Your task to perform on an android device: Go to wifi settings Image 0: 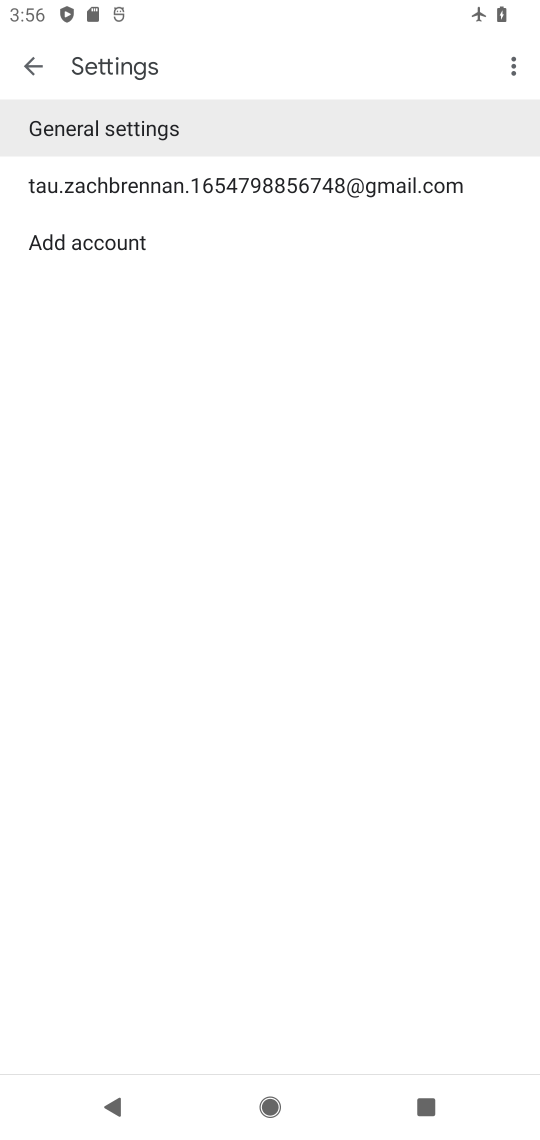
Step 0: press home button
Your task to perform on an android device: Go to wifi settings Image 1: 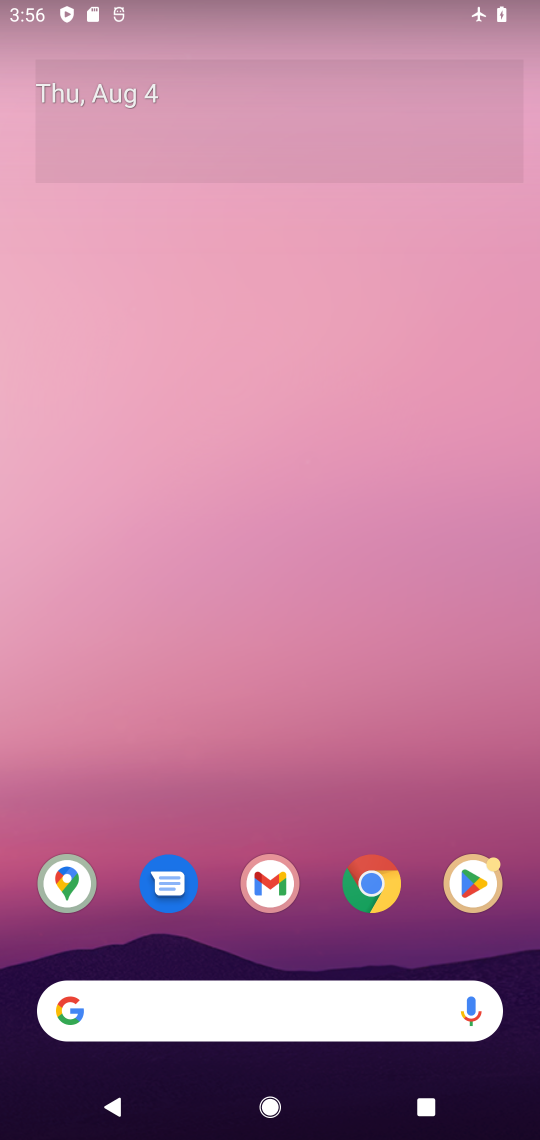
Step 1: drag from (422, 870) to (155, 53)
Your task to perform on an android device: Go to wifi settings Image 2: 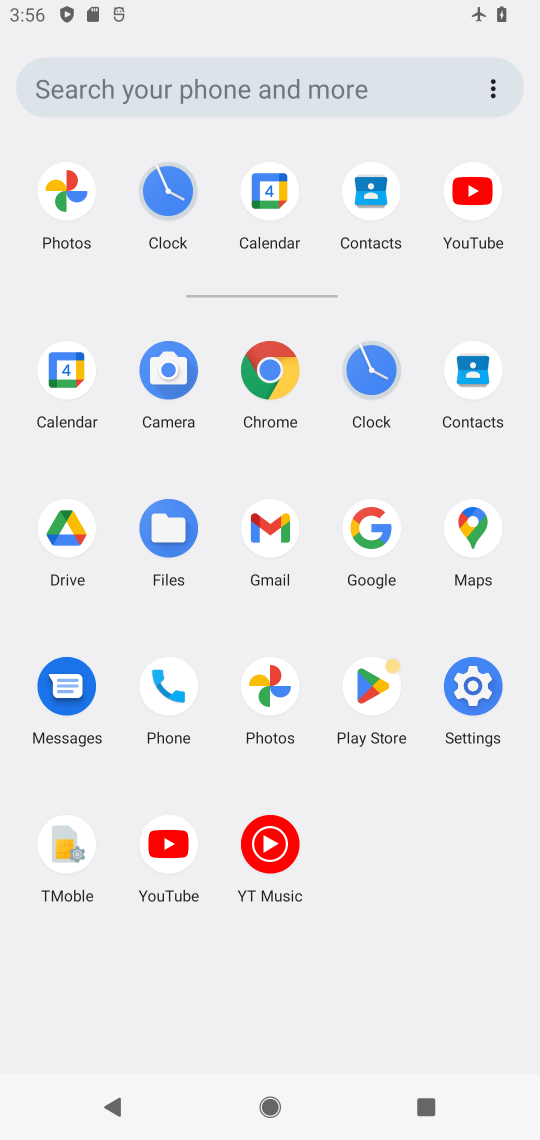
Step 2: click (444, 698)
Your task to perform on an android device: Go to wifi settings Image 3: 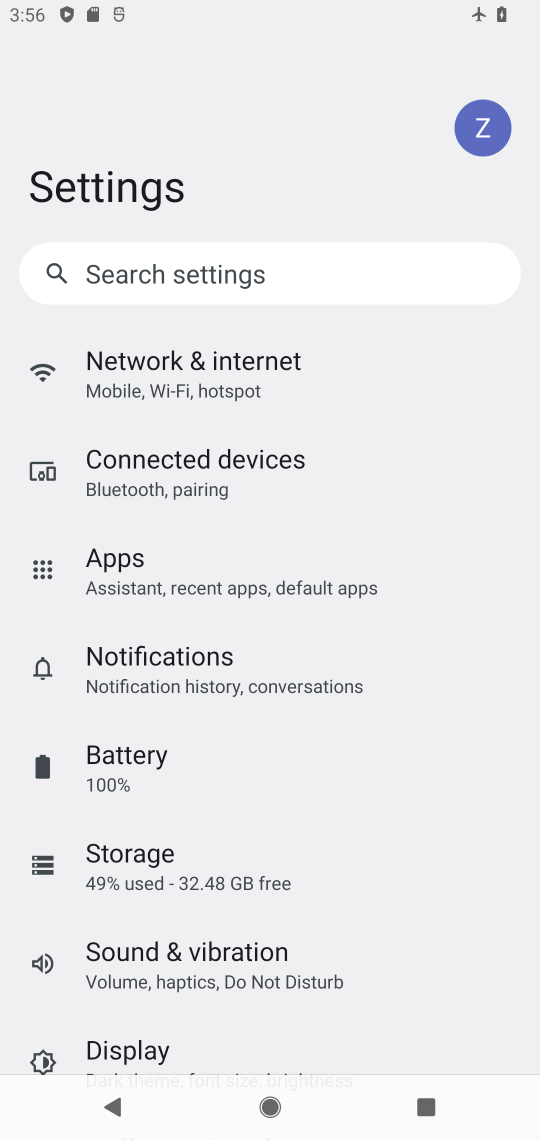
Step 3: click (174, 377)
Your task to perform on an android device: Go to wifi settings Image 4: 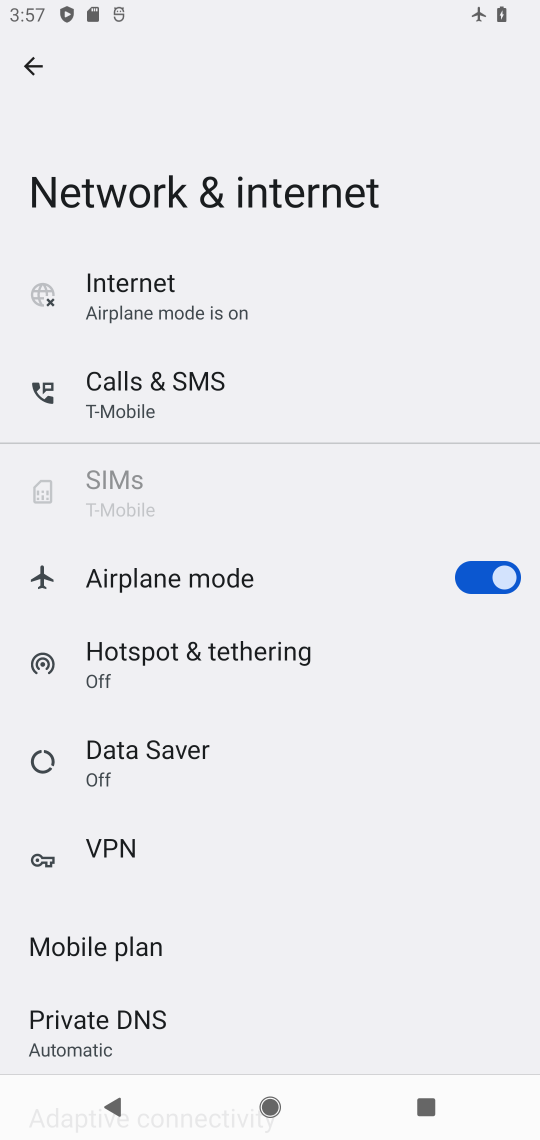
Step 4: click (155, 309)
Your task to perform on an android device: Go to wifi settings Image 5: 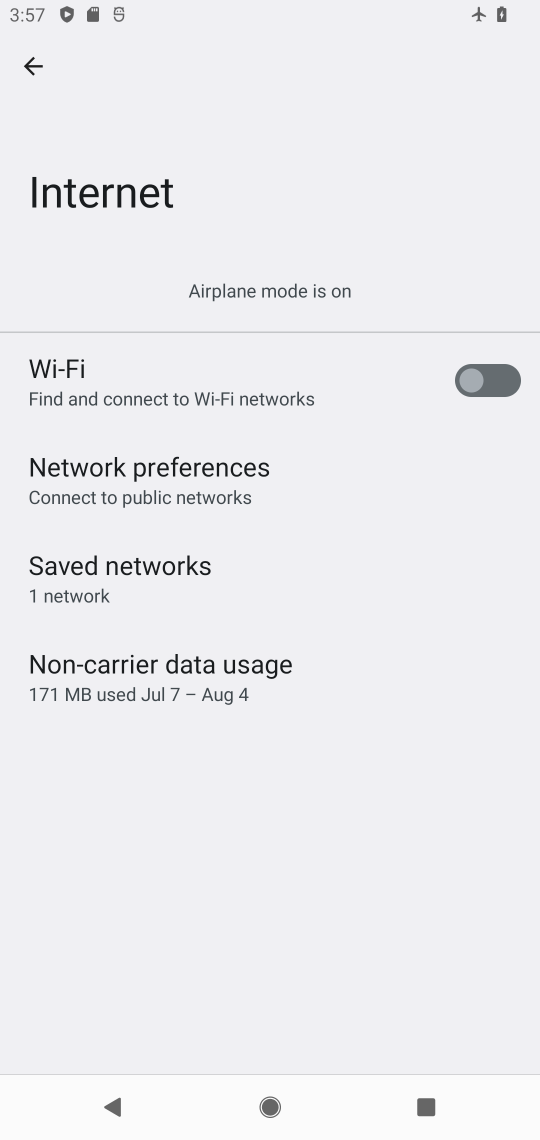
Step 5: task complete